Your task to perform on an android device: open chrome and create a bookmark for the current page Image 0: 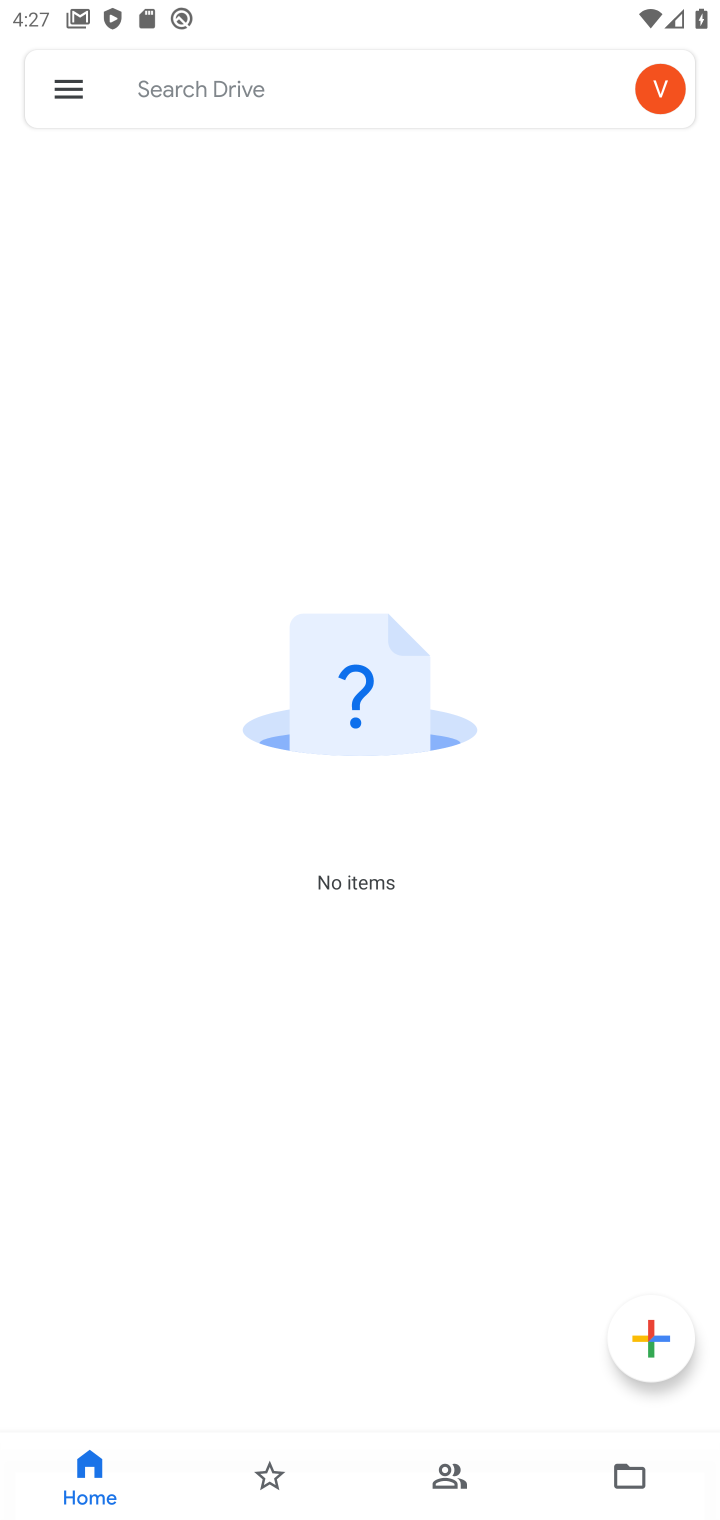
Step 0: press home button
Your task to perform on an android device: open chrome and create a bookmark for the current page Image 1: 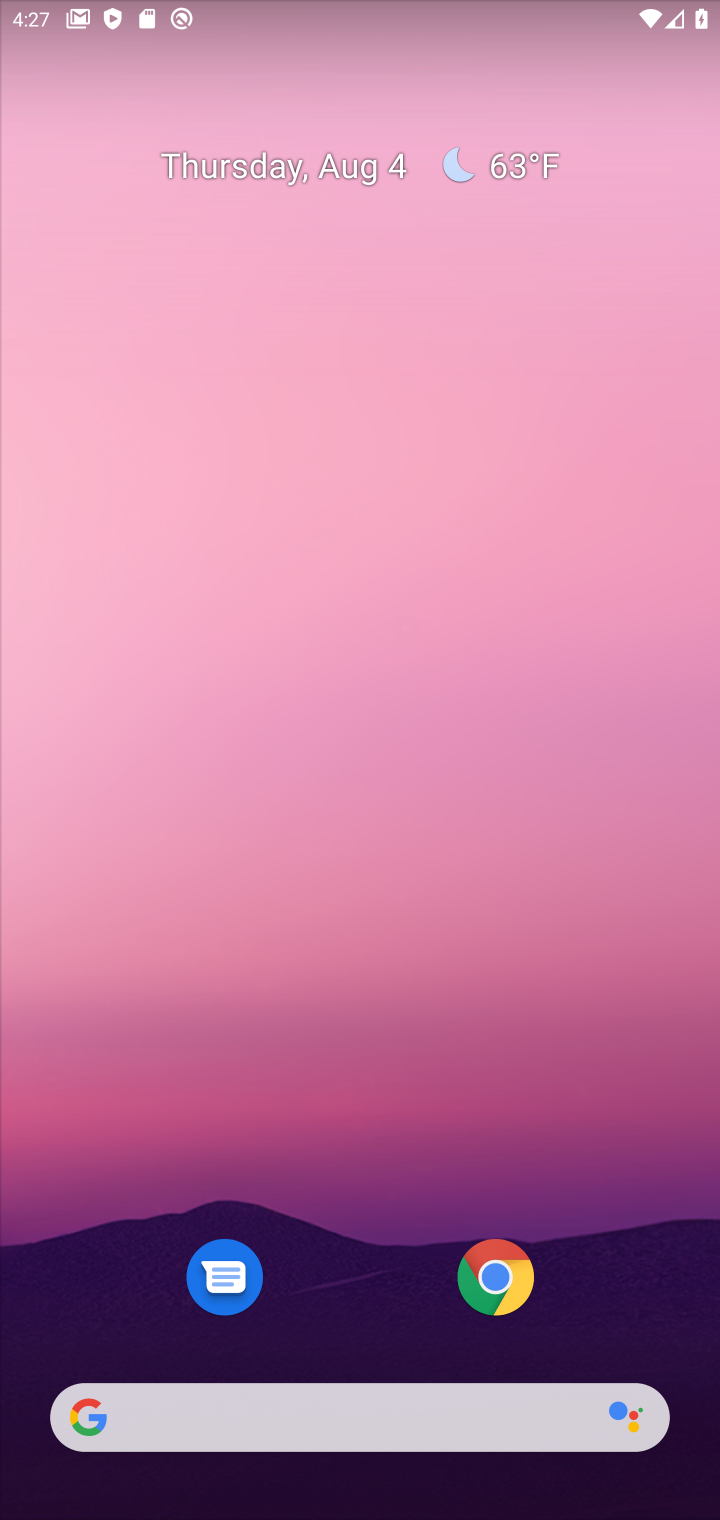
Step 1: drag from (388, 826) to (368, 9)
Your task to perform on an android device: open chrome and create a bookmark for the current page Image 2: 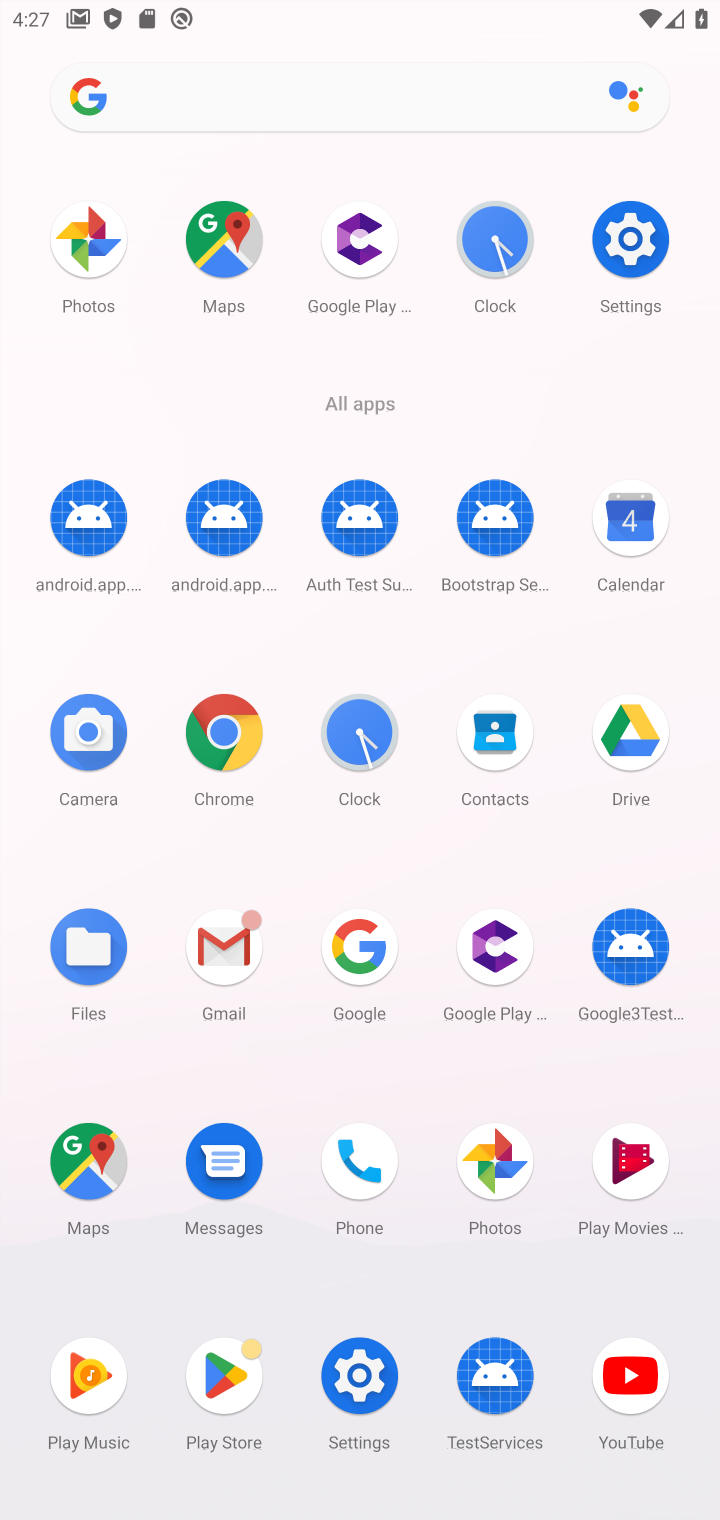
Step 2: click (232, 768)
Your task to perform on an android device: open chrome and create a bookmark for the current page Image 3: 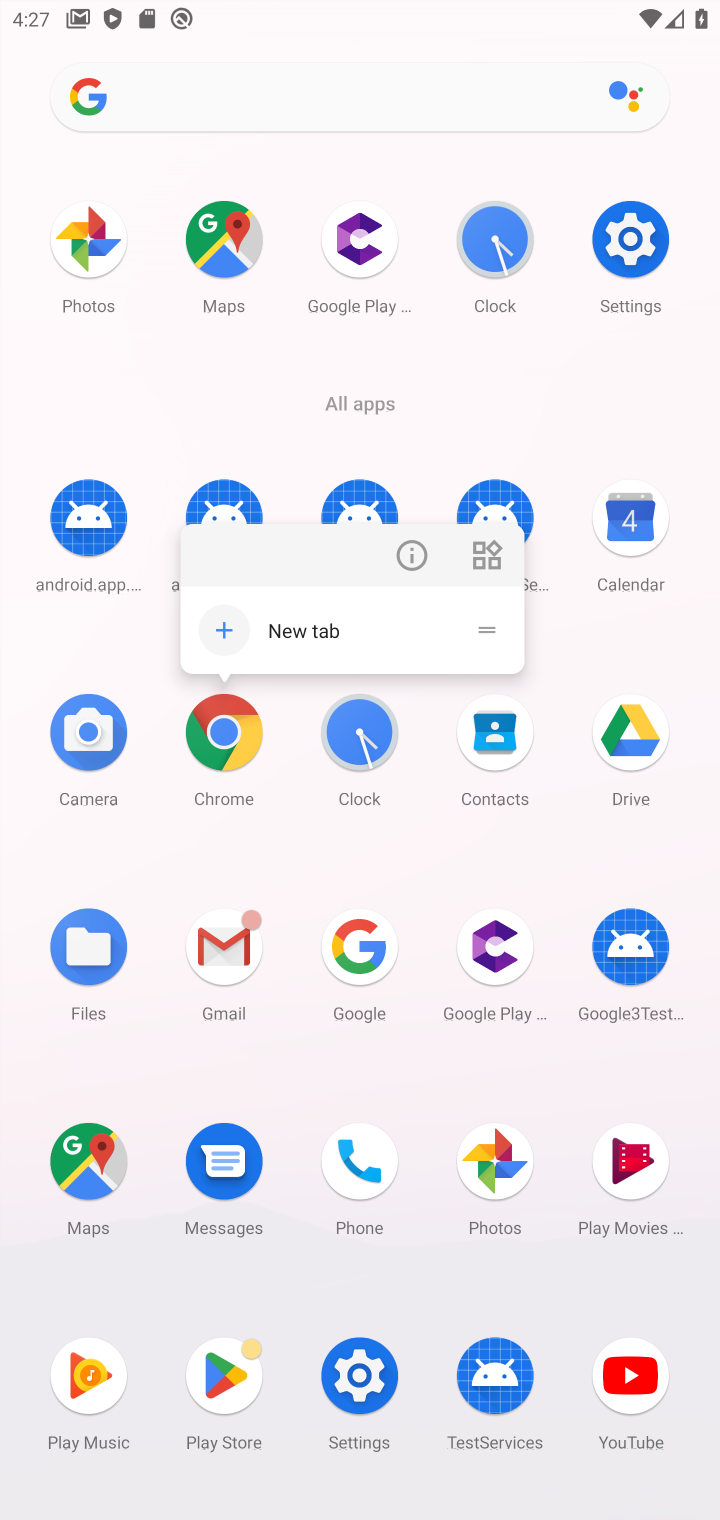
Step 3: click (223, 744)
Your task to perform on an android device: open chrome and create a bookmark for the current page Image 4: 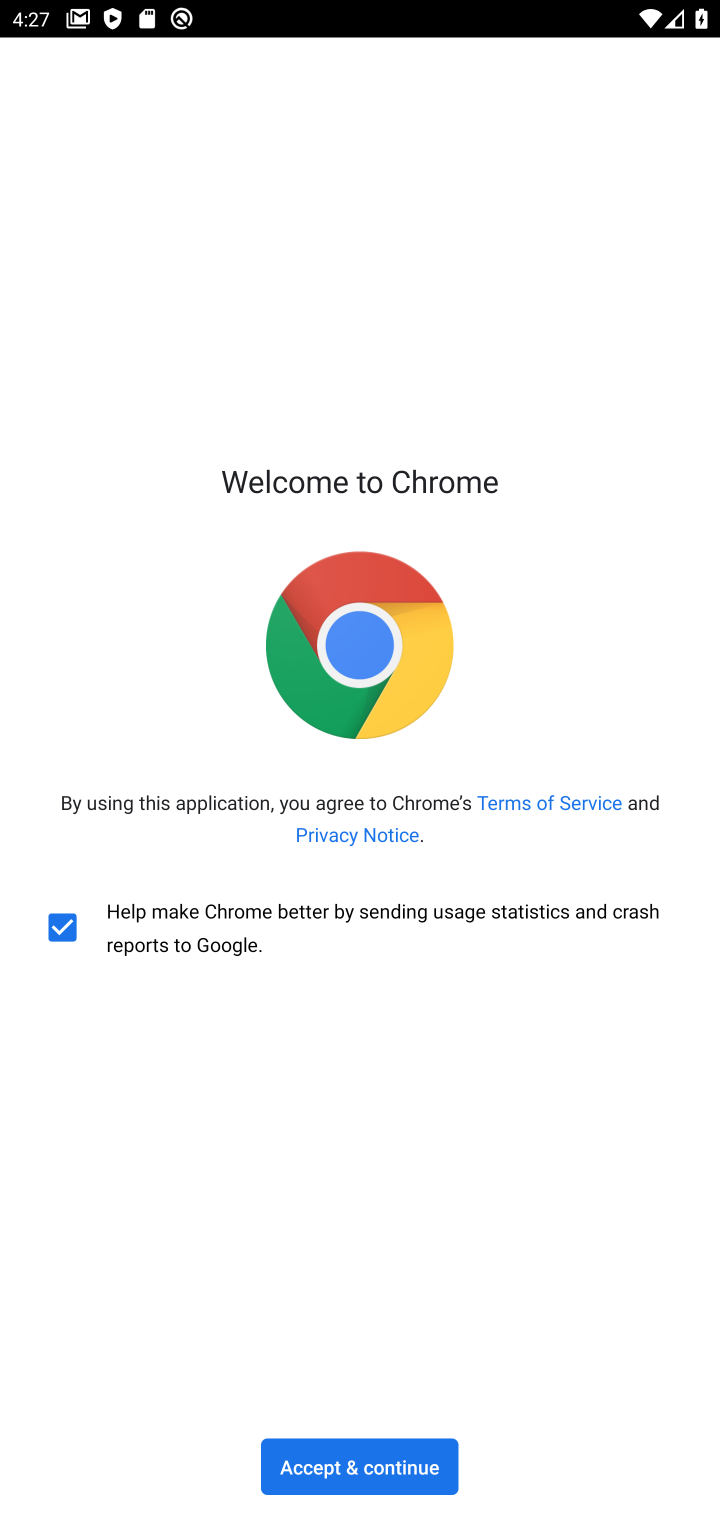
Step 4: click (298, 1464)
Your task to perform on an android device: open chrome and create a bookmark for the current page Image 5: 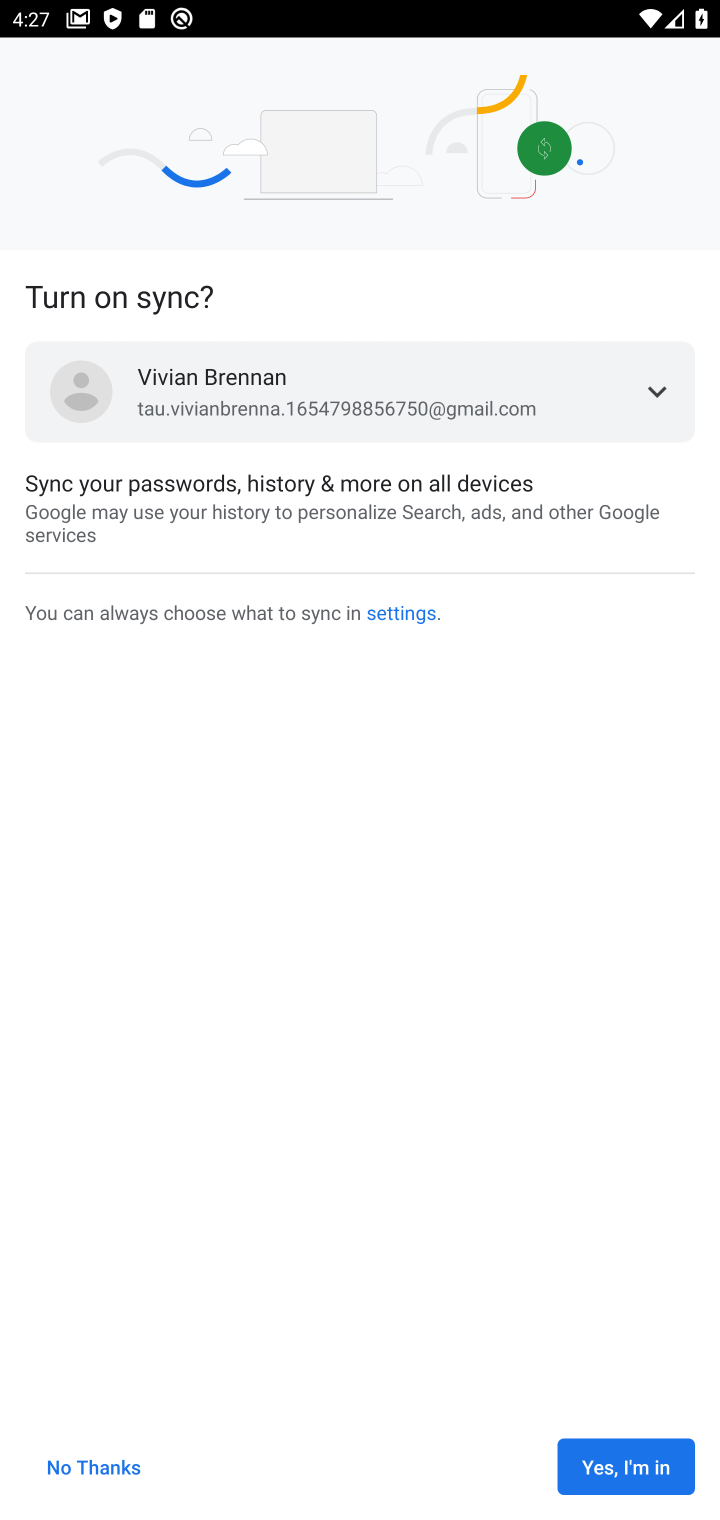
Step 5: click (67, 1450)
Your task to perform on an android device: open chrome and create a bookmark for the current page Image 6: 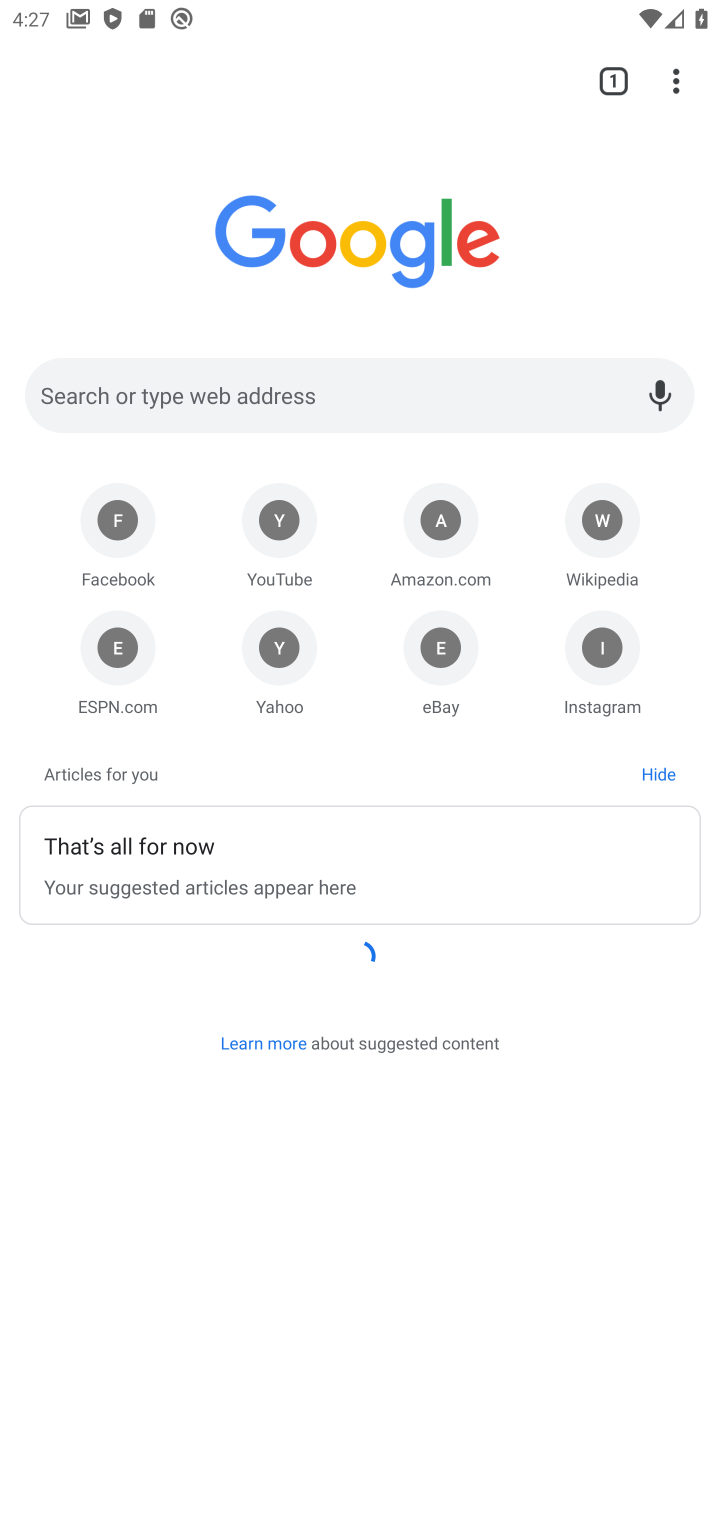
Step 6: task complete